Your task to perform on an android device: Open privacy settings Image 0: 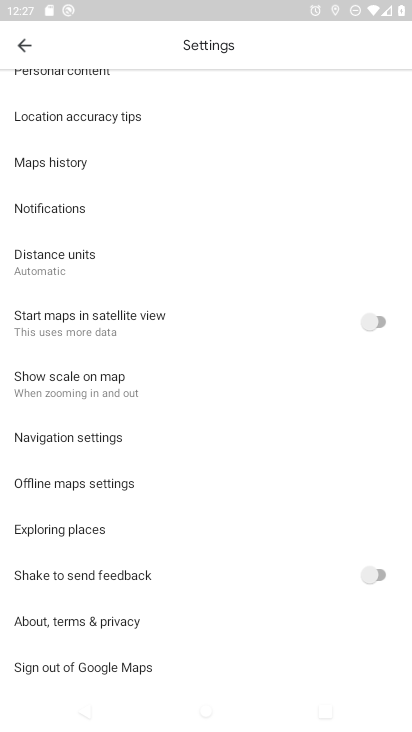
Step 0: press home button
Your task to perform on an android device: Open privacy settings Image 1: 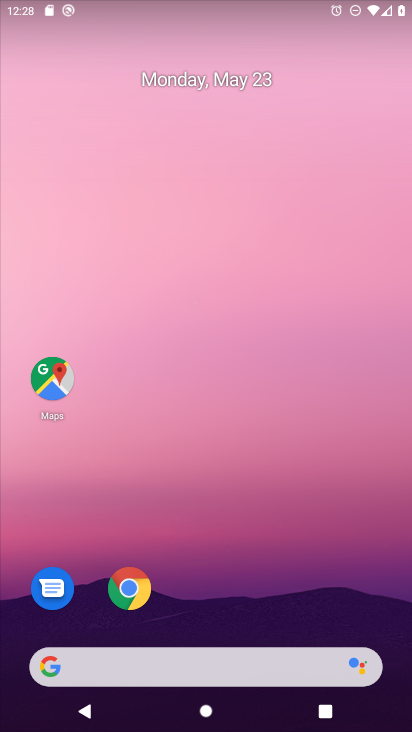
Step 1: drag from (225, 625) to (189, 113)
Your task to perform on an android device: Open privacy settings Image 2: 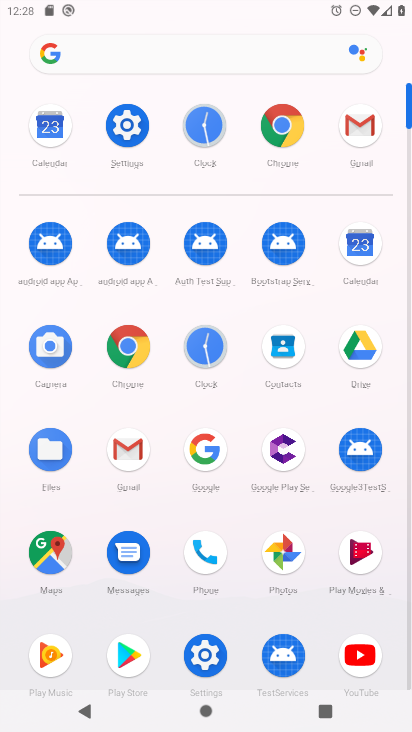
Step 2: click (119, 131)
Your task to perform on an android device: Open privacy settings Image 3: 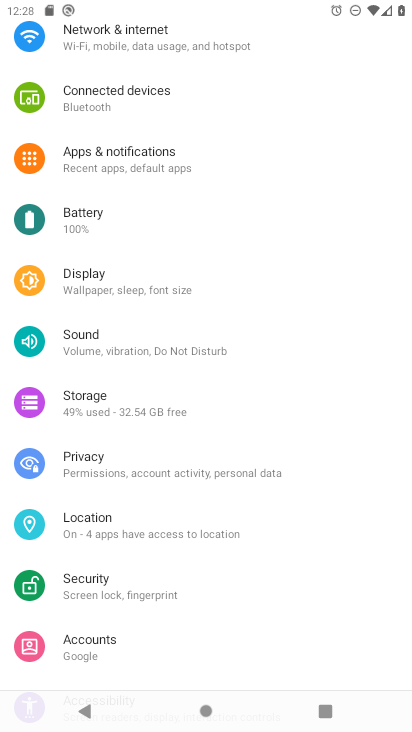
Step 3: click (121, 478)
Your task to perform on an android device: Open privacy settings Image 4: 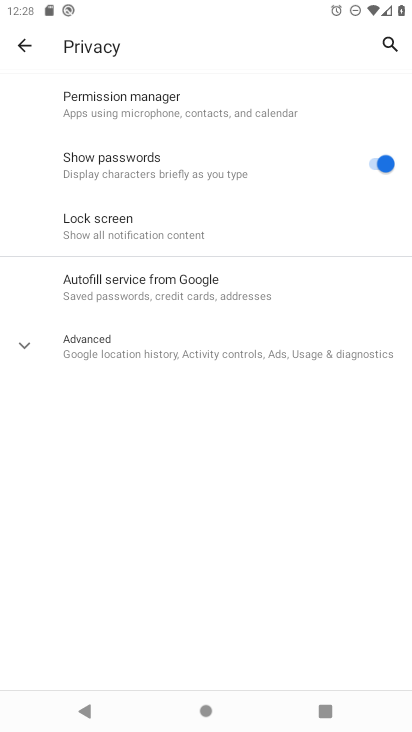
Step 4: click (58, 357)
Your task to perform on an android device: Open privacy settings Image 5: 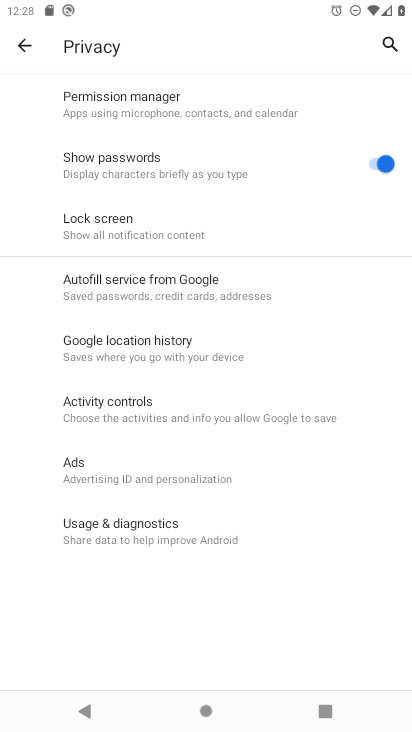
Step 5: task complete